Your task to perform on an android device: add a contact Image 0: 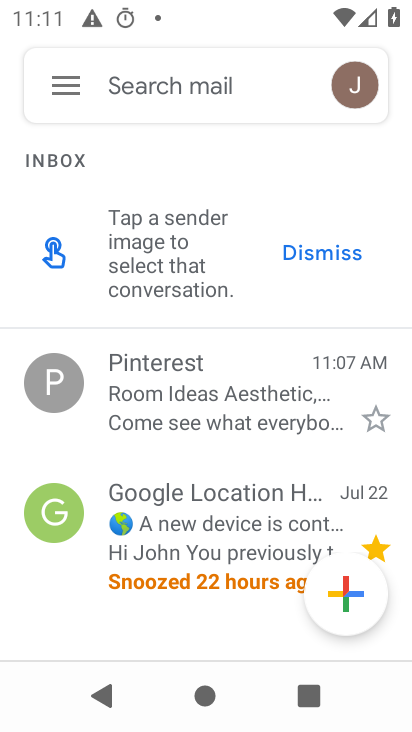
Step 0: press back button
Your task to perform on an android device: add a contact Image 1: 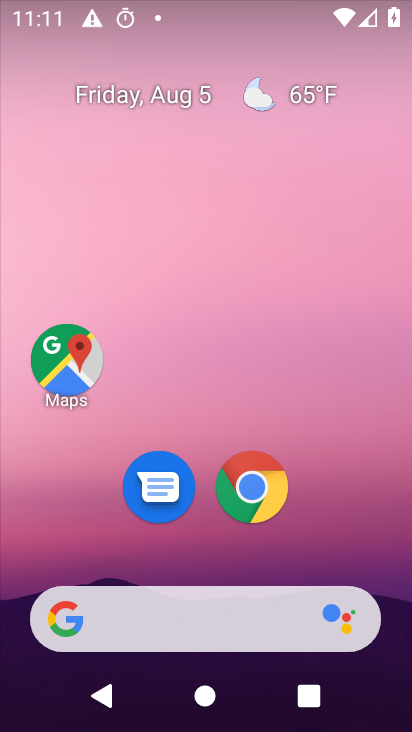
Step 1: drag from (142, 588) to (236, 34)
Your task to perform on an android device: add a contact Image 2: 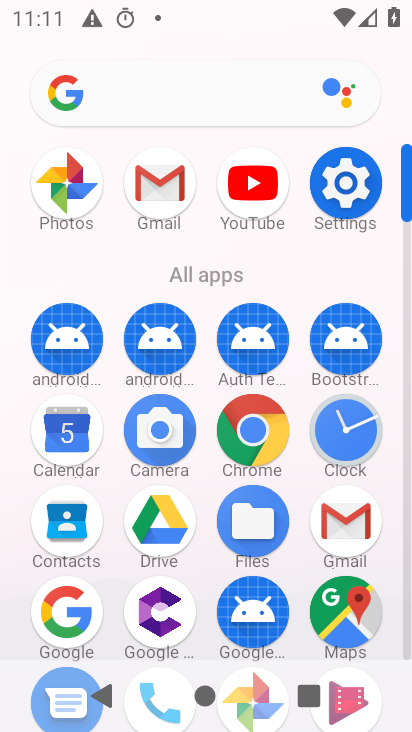
Step 2: click (62, 542)
Your task to perform on an android device: add a contact Image 3: 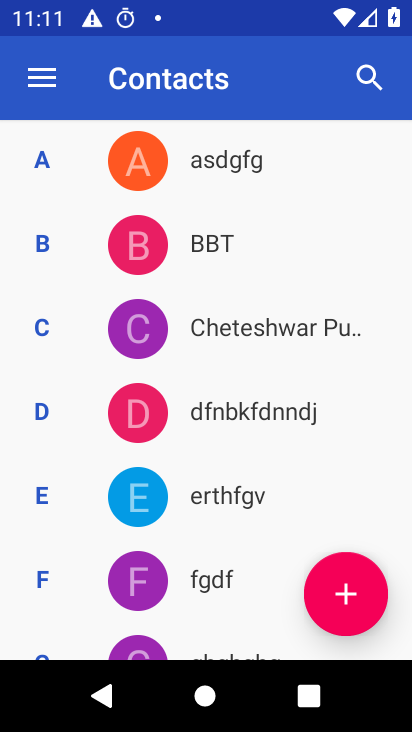
Step 3: click (347, 593)
Your task to perform on an android device: add a contact Image 4: 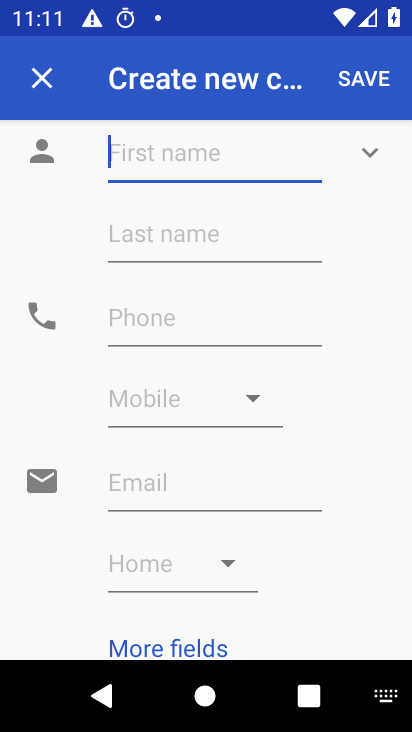
Step 4: click (155, 146)
Your task to perform on an android device: add a contact Image 5: 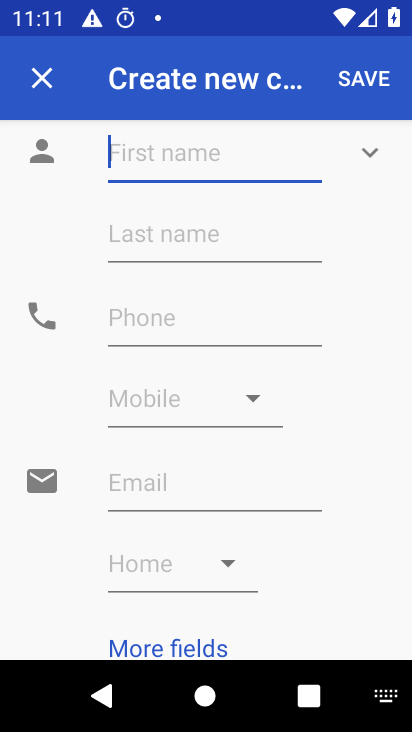
Step 5: type "hvhv"
Your task to perform on an android device: add a contact Image 6: 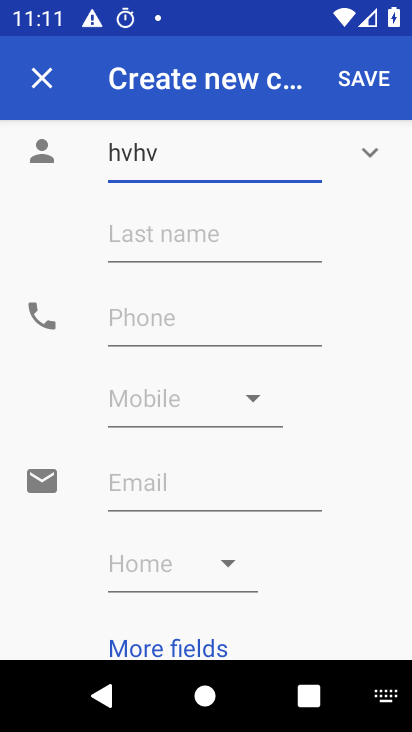
Step 6: click (172, 320)
Your task to perform on an android device: add a contact Image 7: 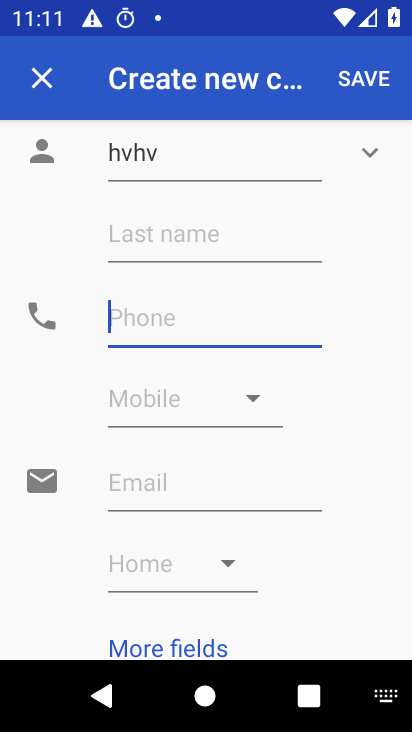
Step 7: type "76767"
Your task to perform on an android device: add a contact Image 8: 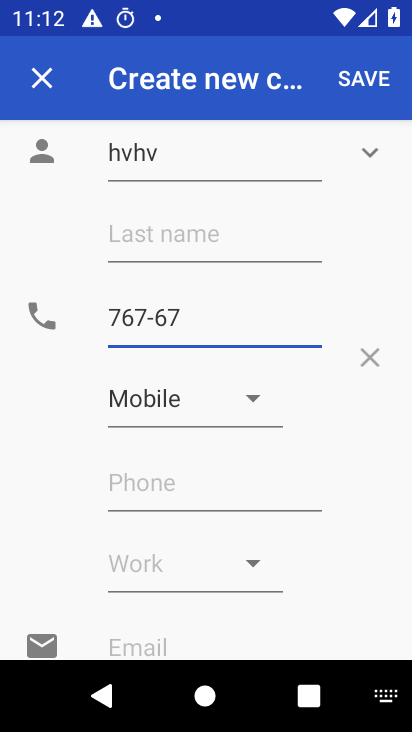
Step 8: click (361, 73)
Your task to perform on an android device: add a contact Image 9: 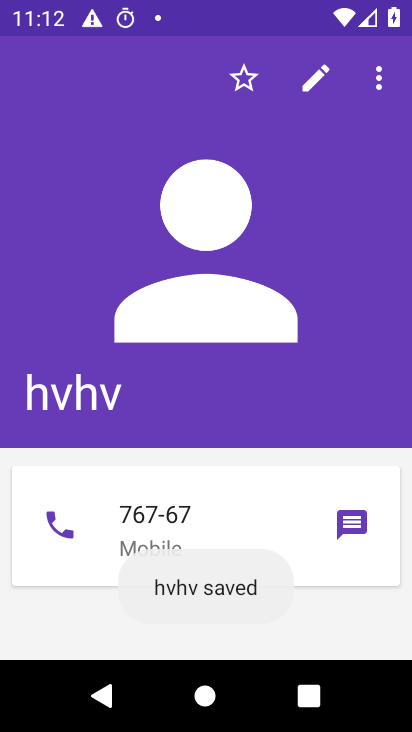
Step 9: task complete